Your task to perform on an android device: Find coffee shops on Maps Image 0: 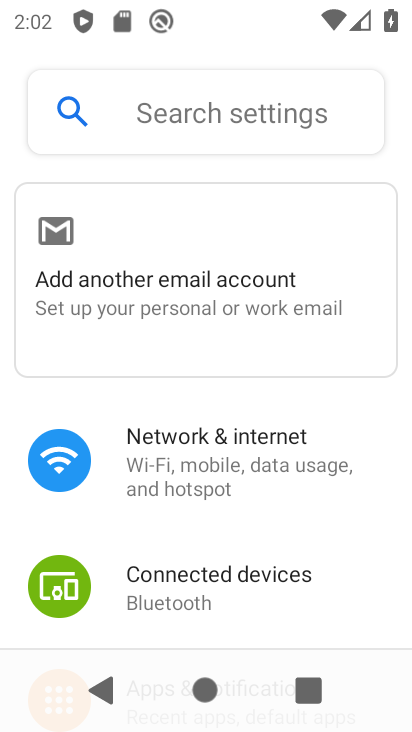
Step 0: press home button
Your task to perform on an android device: Find coffee shops on Maps Image 1: 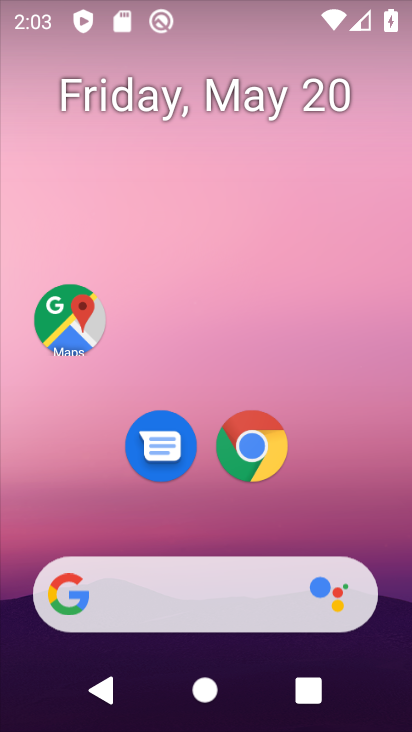
Step 1: click (61, 323)
Your task to perform on an android device: Find coffee shops on Maps Image 2: 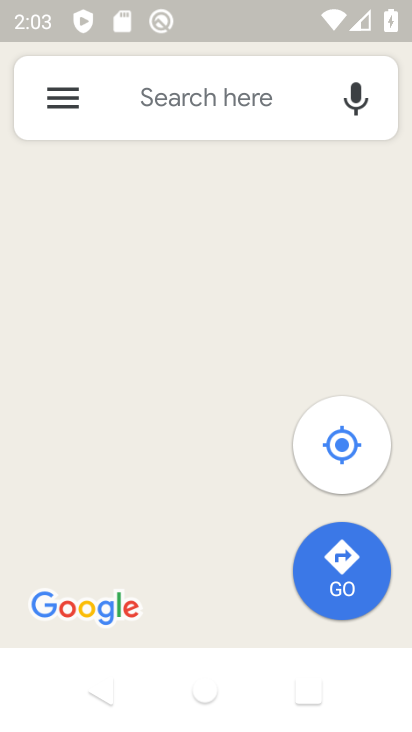
Step 2: click (148, 98)
Your task to perform on an android device: Find coffee shops on Maps Image 3: 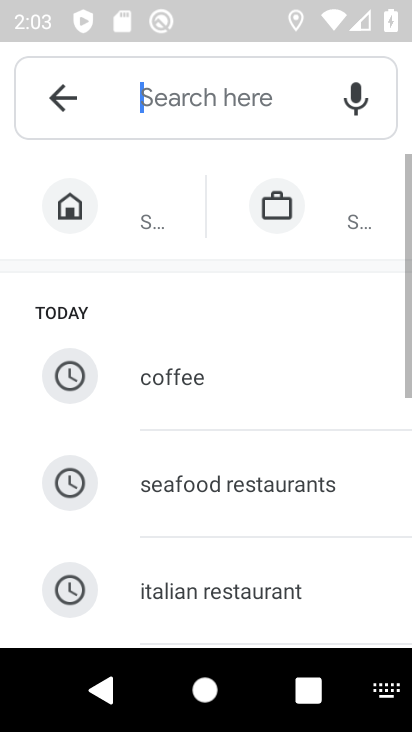
Step 3: type "coffee shop"
Your task to perform on an android device: Find coffee shops on Maps Image 4: 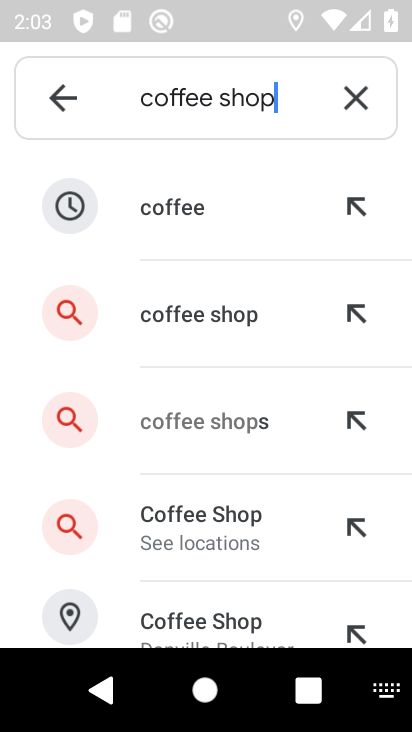
Step 4: click (159, 323)
Your task to perform on an android device: Find coffee shops on Maps Image 5: 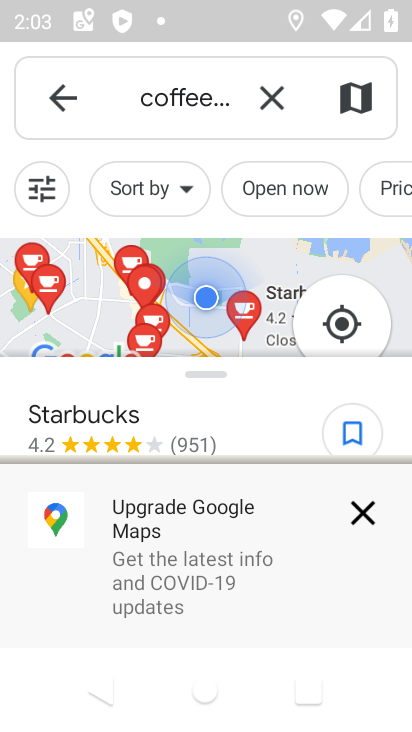
Step 5: task complete